Your task to perform on an android device: Show me recent news Image 0: 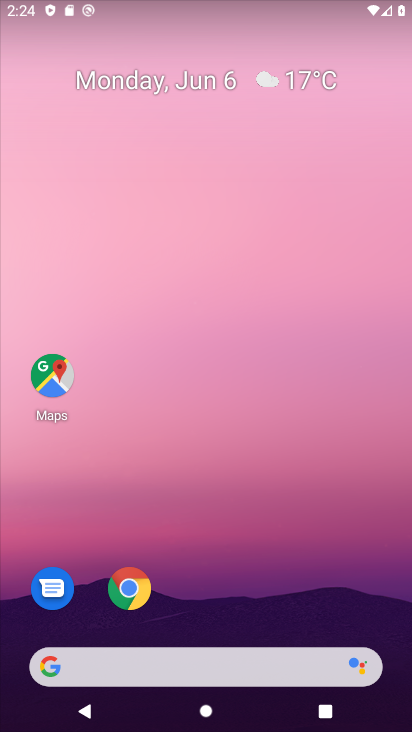
Step 0: drag from (5, 264) to (383, 293)
Your task to perform on an android device: Show me recent news Image 1: 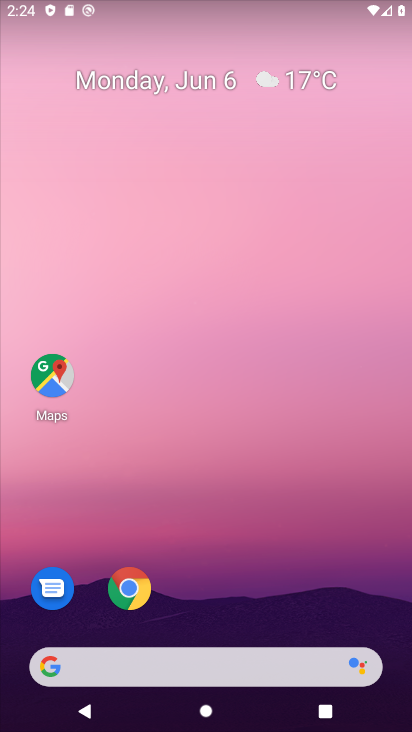
Step 1: task complete